Your task to perform on an android device: find photos in the google photos app Image 0: 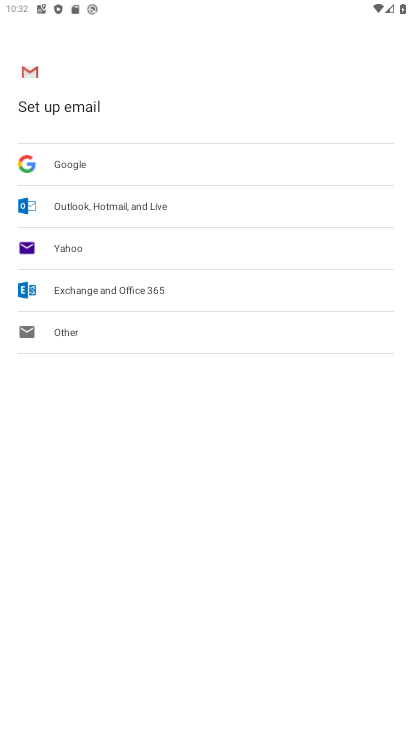
Step 0: press home button
Your task to perform on an android device: find photos in the google photos app Image 1: 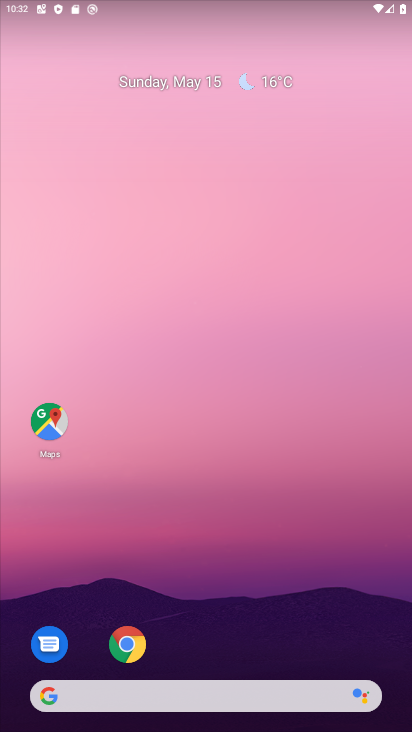
Step 1: drag from (236, 609) to (208, 23)
Your task to perform on an android device: find photos in the google photos app Image 2: 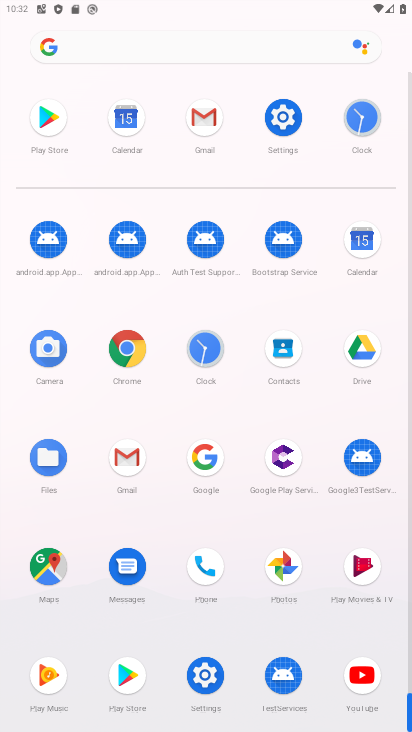
Step 2: click (277, 569)
Your task to perform on an android device: find photos in the google photos app Image 3: 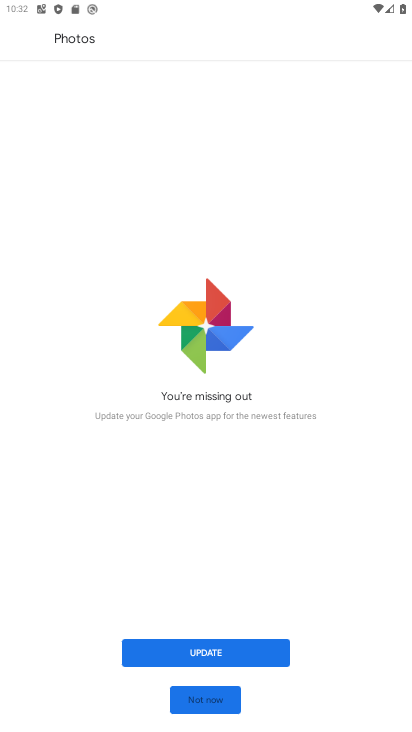
Step 3: click (209, 703)
Your task to perform on an android device: find photos in the google photos app Image 4: 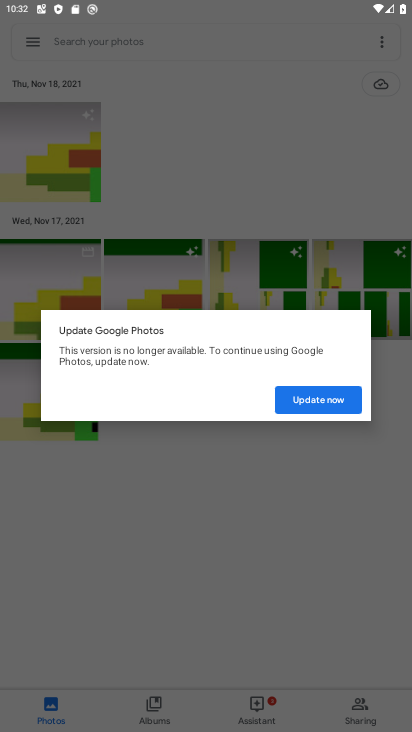
Step 4: click (309, 402)
Your task to perform on an android device: find photos in the google photos app Image 5: 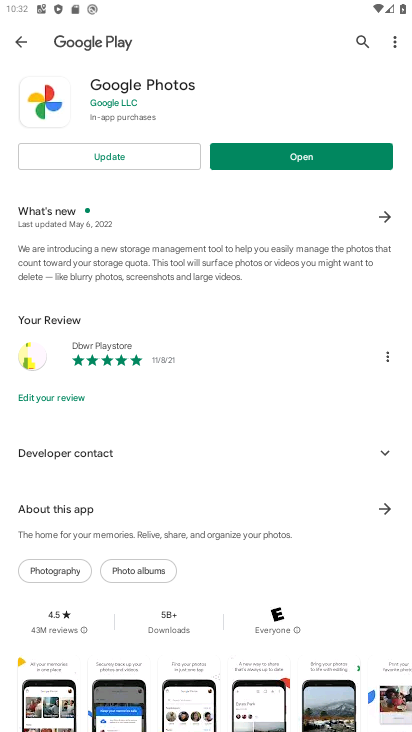
Step 5: click (272, 154)
Your task to perform on an android device: find photos in the google photos app Image 6: 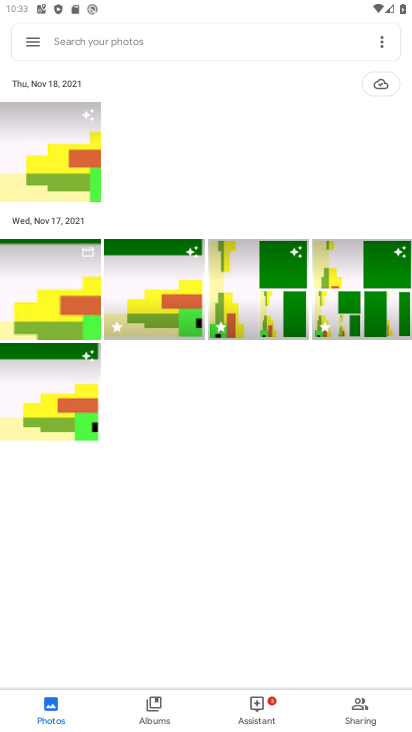
Step 6: task complete